Your task to perform on an android device: Show me recent news Image 0: 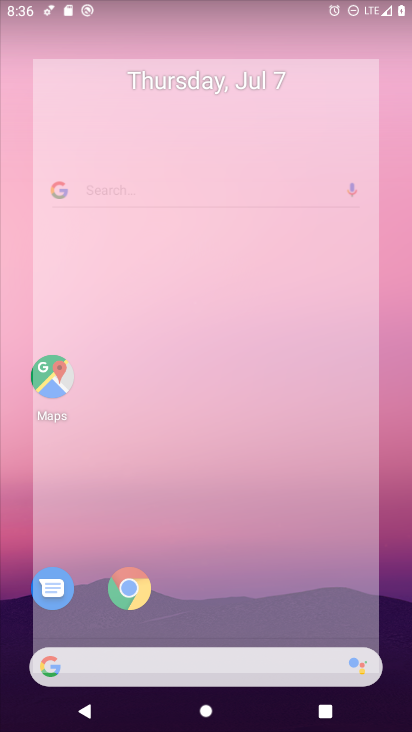
Step 0: drag from (260, 618) to (253, 387)
Your task to perform on an android device: Show me recent news Image 1: 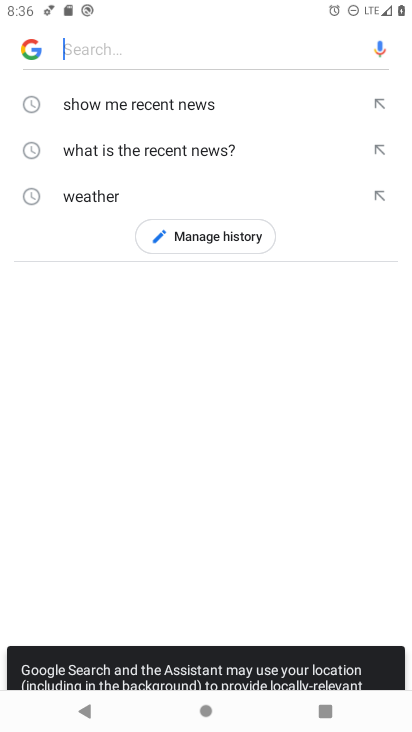
Step 1: click (96, 93)
Your task to perform on an android device: Show me recent news Image 2: 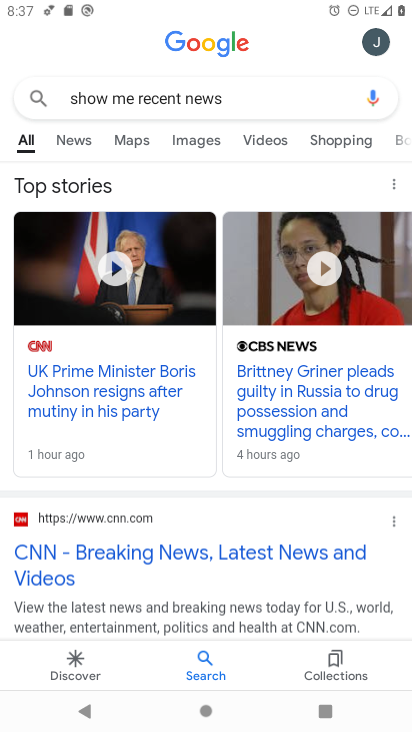
Step 2: task complete